Your task to perform on an android device: see creations saved in the google photos Image 0: 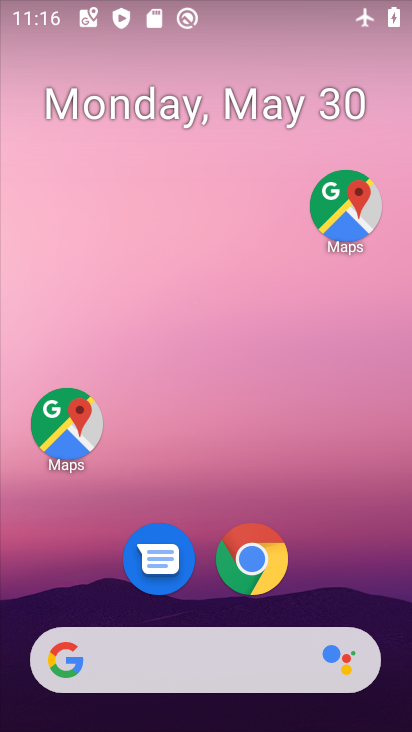
Step 0: drag from (347, 569) to (264, 29)
Your task to perform on an android device: see creations saved in the google photos Image 1: 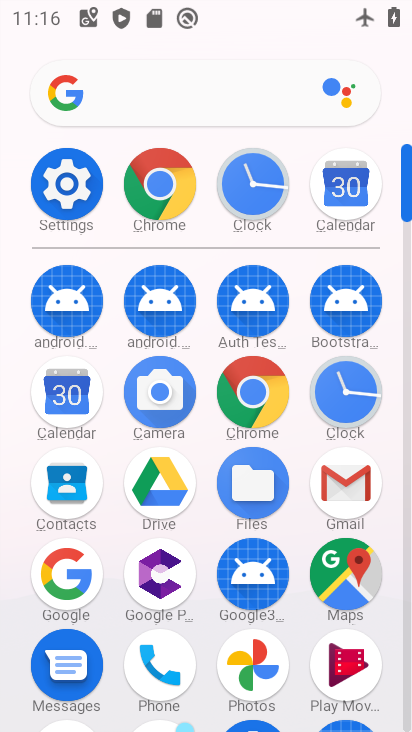
Step 1: drag from (303, 623) to (317, 222)
Your task to perform on an android device: see creations saved in the google photos Image 2: 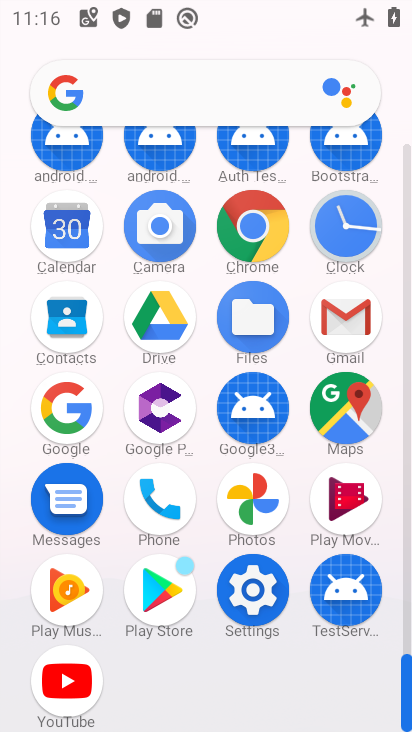
Step 2: click (251, 512)
Your task to perform on an android device: see creations saved in the google photos Image 3: 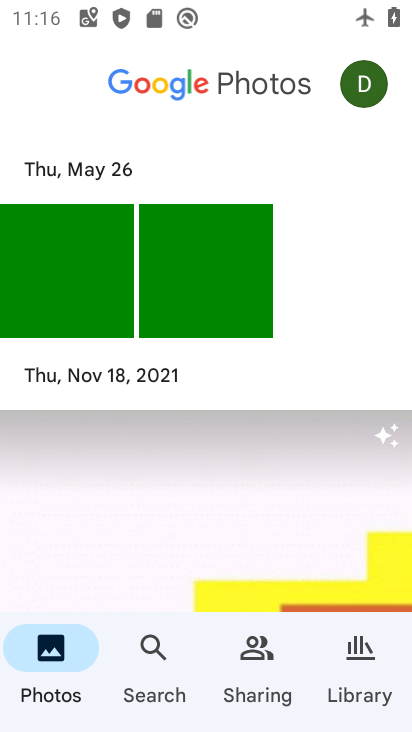
Step 3: click (367, 678)
Your task to perform on an android device: see creations saved in the google photos Image 4: 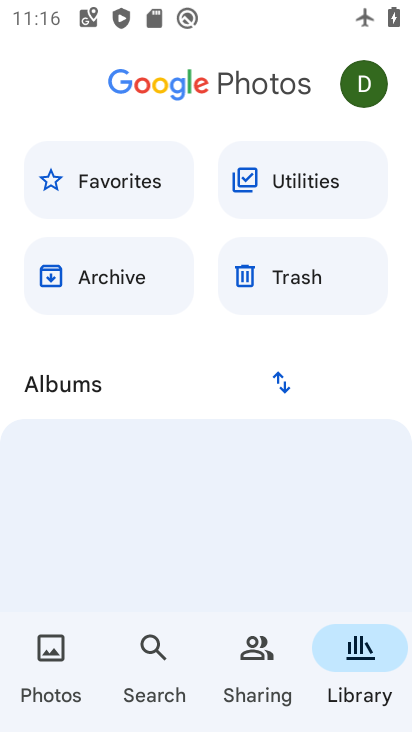
Step 4: click (292, 172)
Your task to perform on an android device: see creations saved in the google photos Image 5: 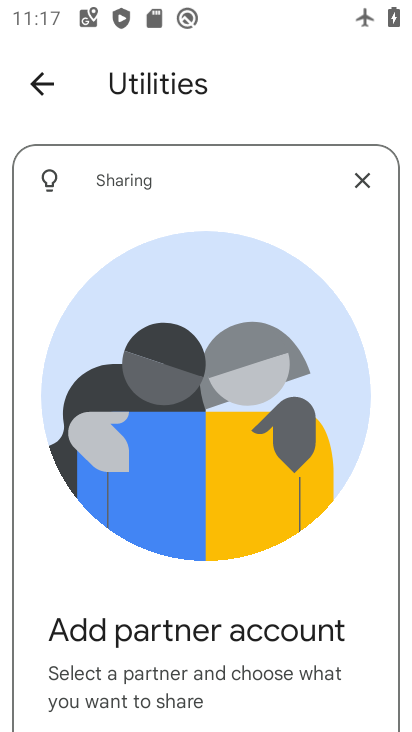
Step 5: click (39, 77)
Your task to perform on an android device: see creations saved in the google photos Image 6: 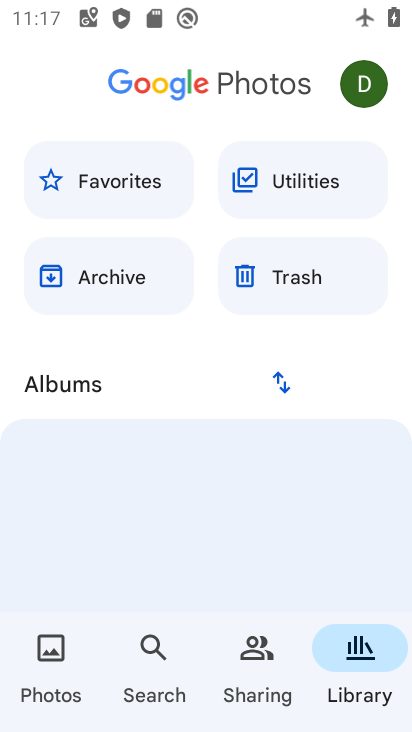
Step 6: task complete